Your task to perform on an android device: open app "ColorNote Notepad Notes" (install if not already installed) Image 0: 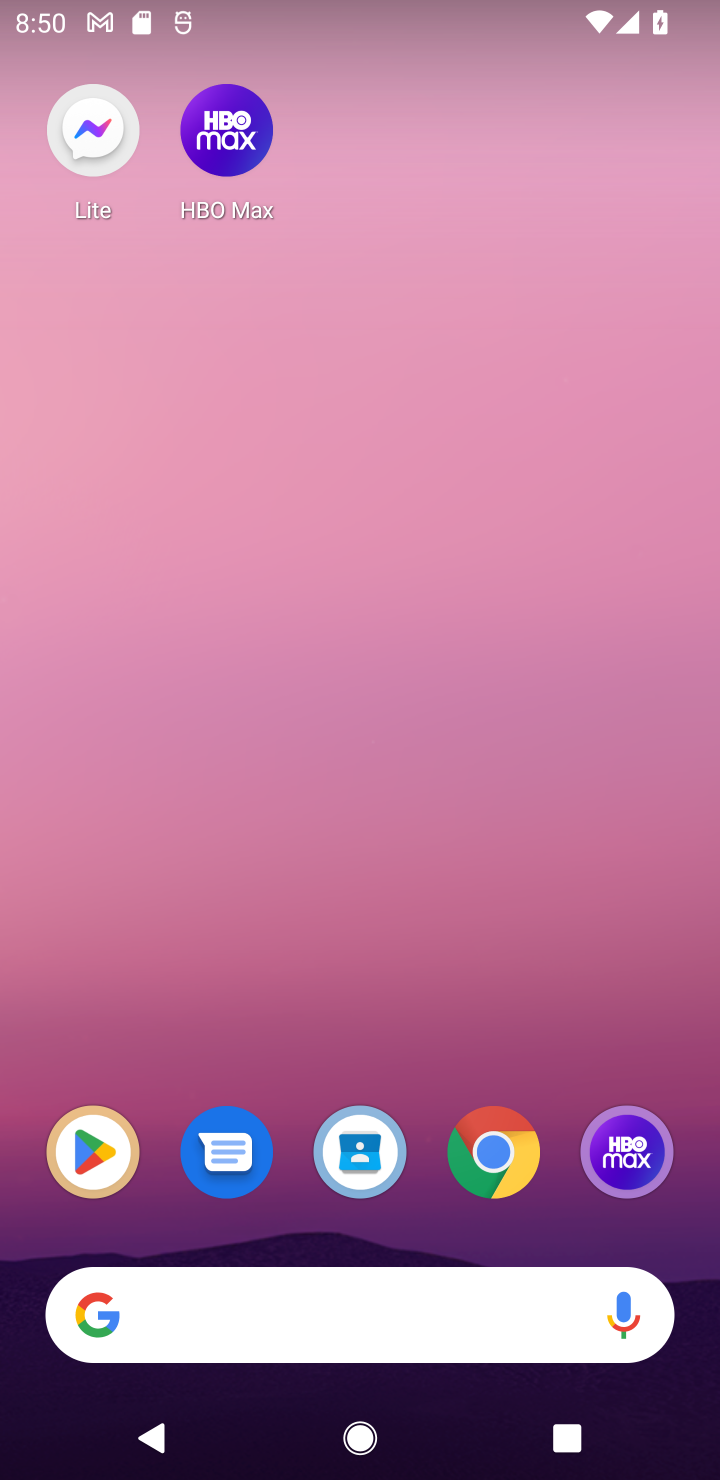
Step 0: drag from (413, 1243) to (389, 117)
Your task to perform on an android device: open app "ColorNote Notepad Notes" (install if not already installed) Image 1: 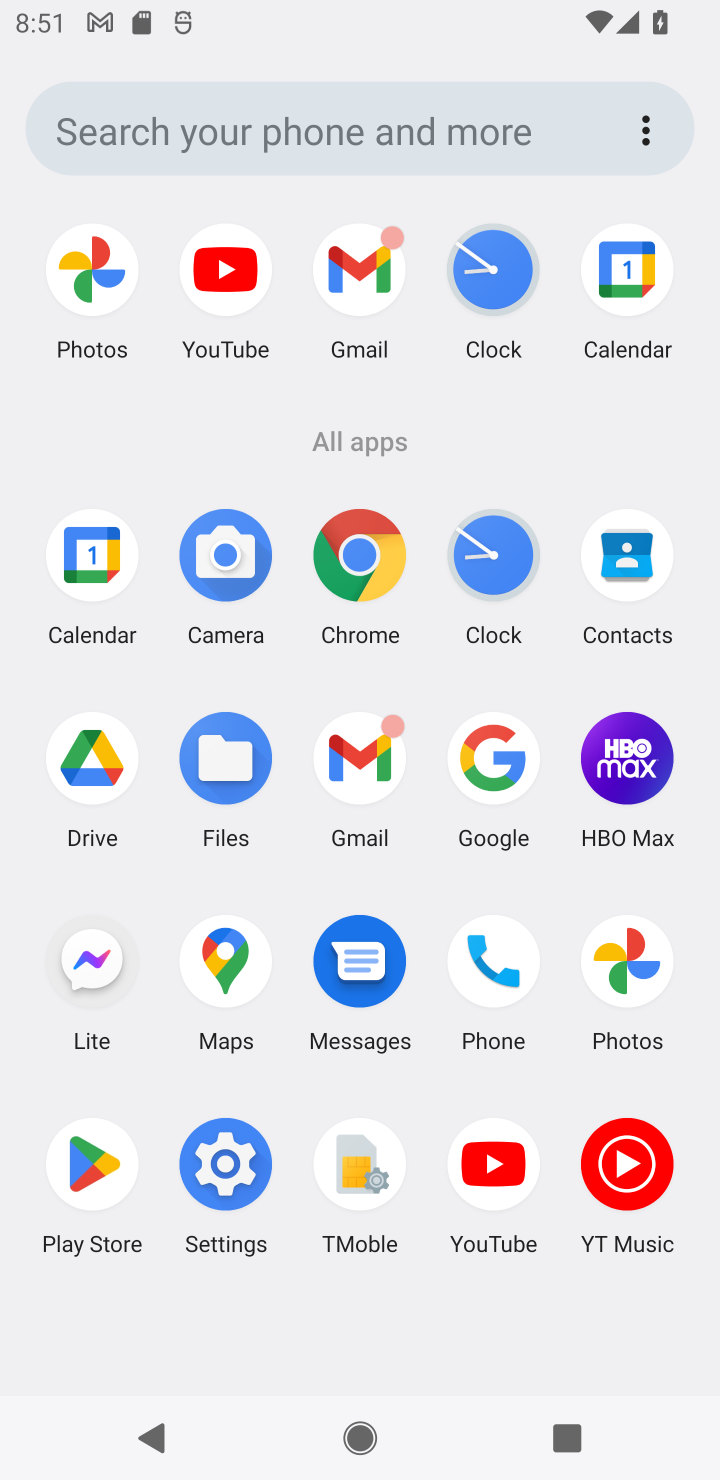
Step 1: click (43, 1158)
Your task to perform on an android device: open app "ColorNote Notepad Notes" (install if not already installed) Image 2: 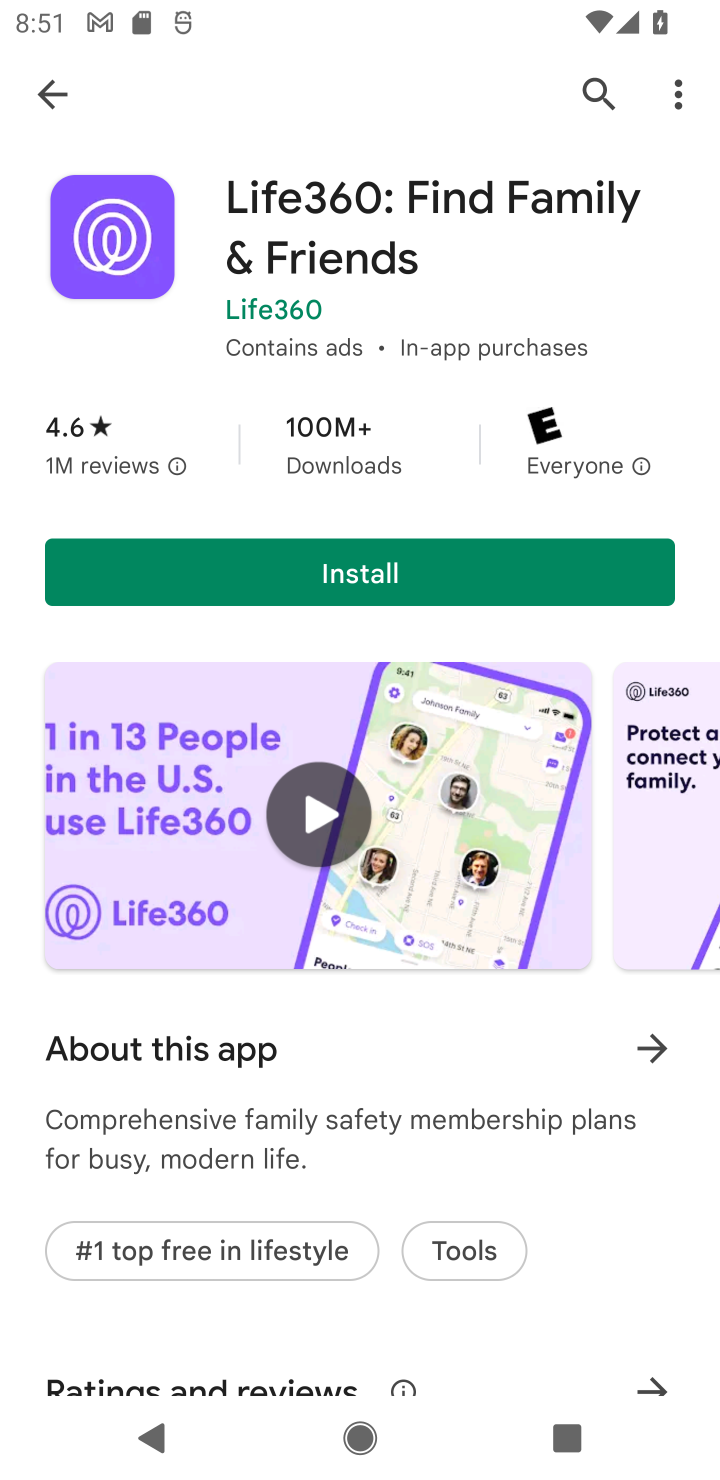
Step 2: click (63, 98)
Your task to perform on an android device: open app "ColorNote Notepad Notes" (install if not already installed) Image 3: 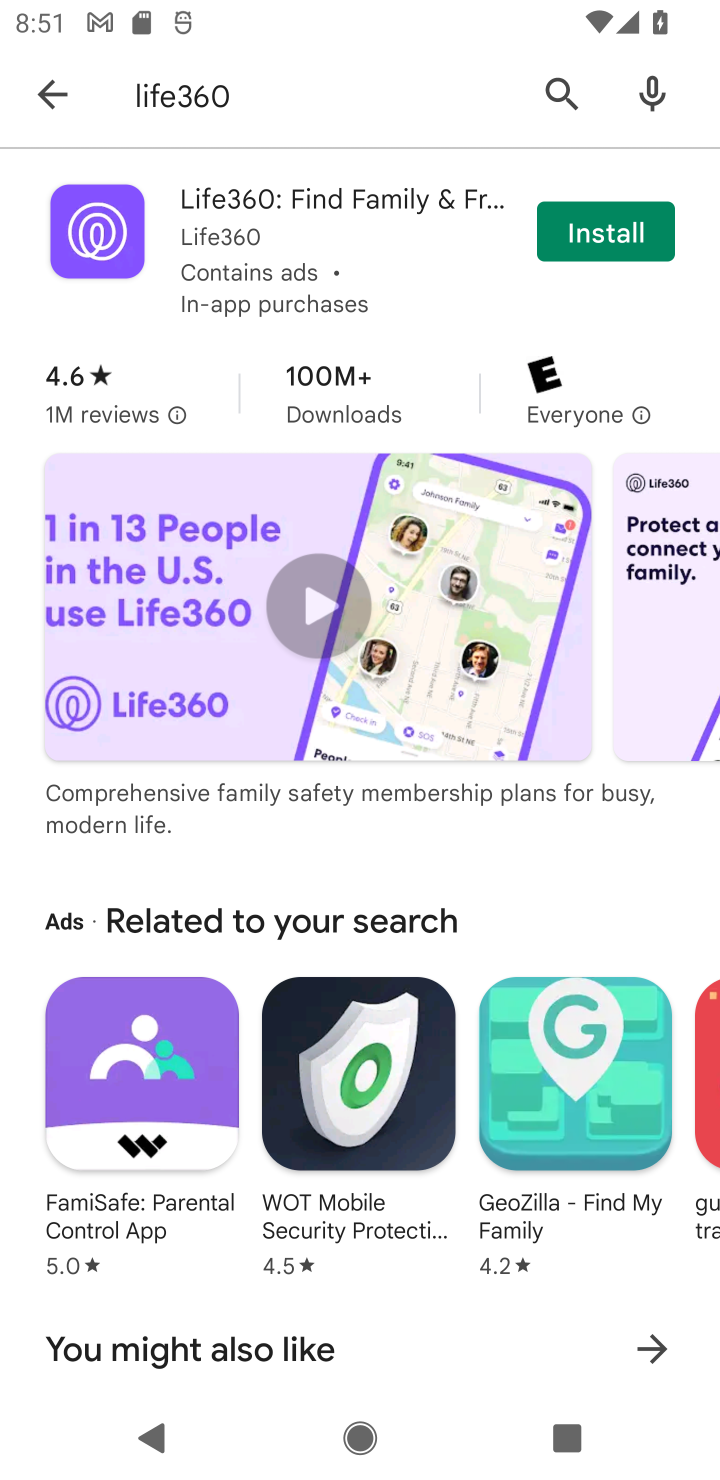
Step 3: click (47, 88)
Your task to perform on an android device: open app "ColorNote Notepad Notes" (install if not already installed) Image 4: 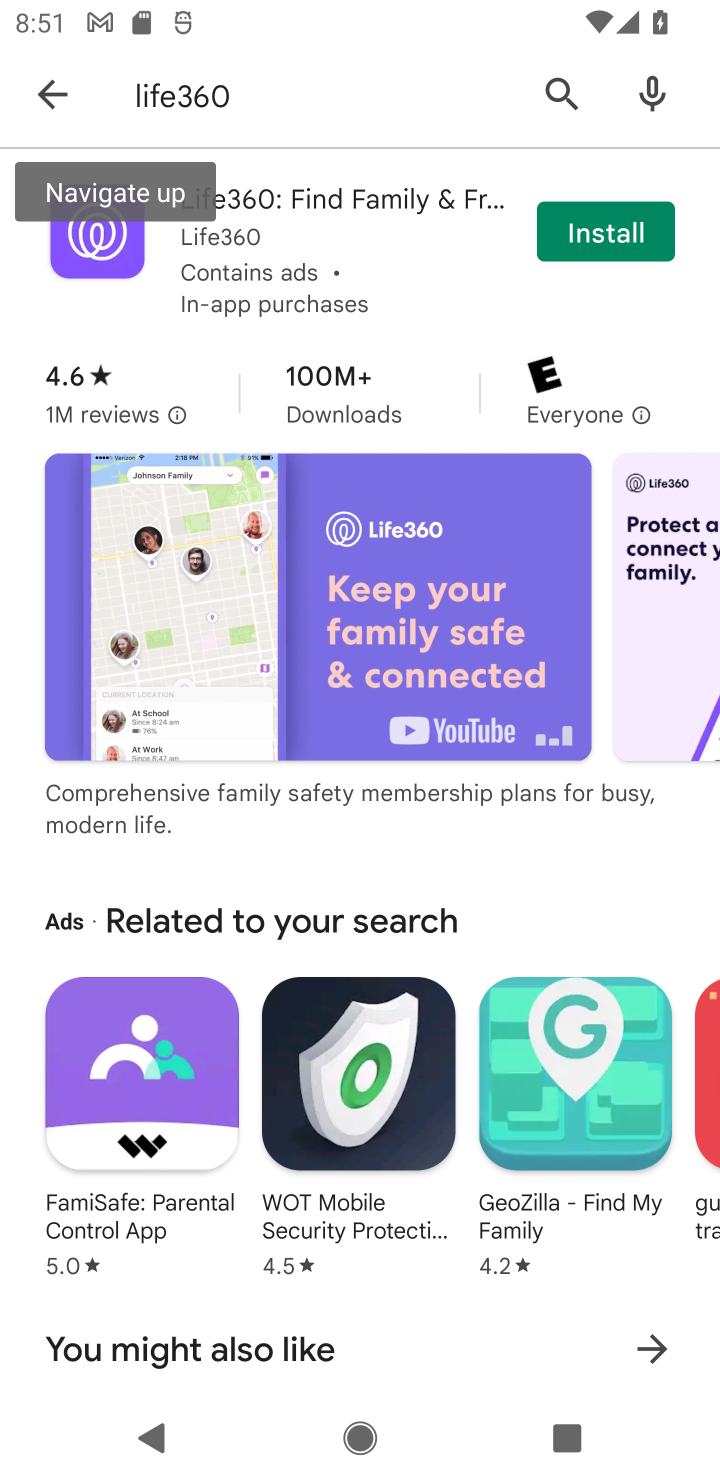
Step 4: click (43, 102)
Your task to perform on an android device: open app "ColorNote Notepad Notes" (install if not already installed) Image 5: 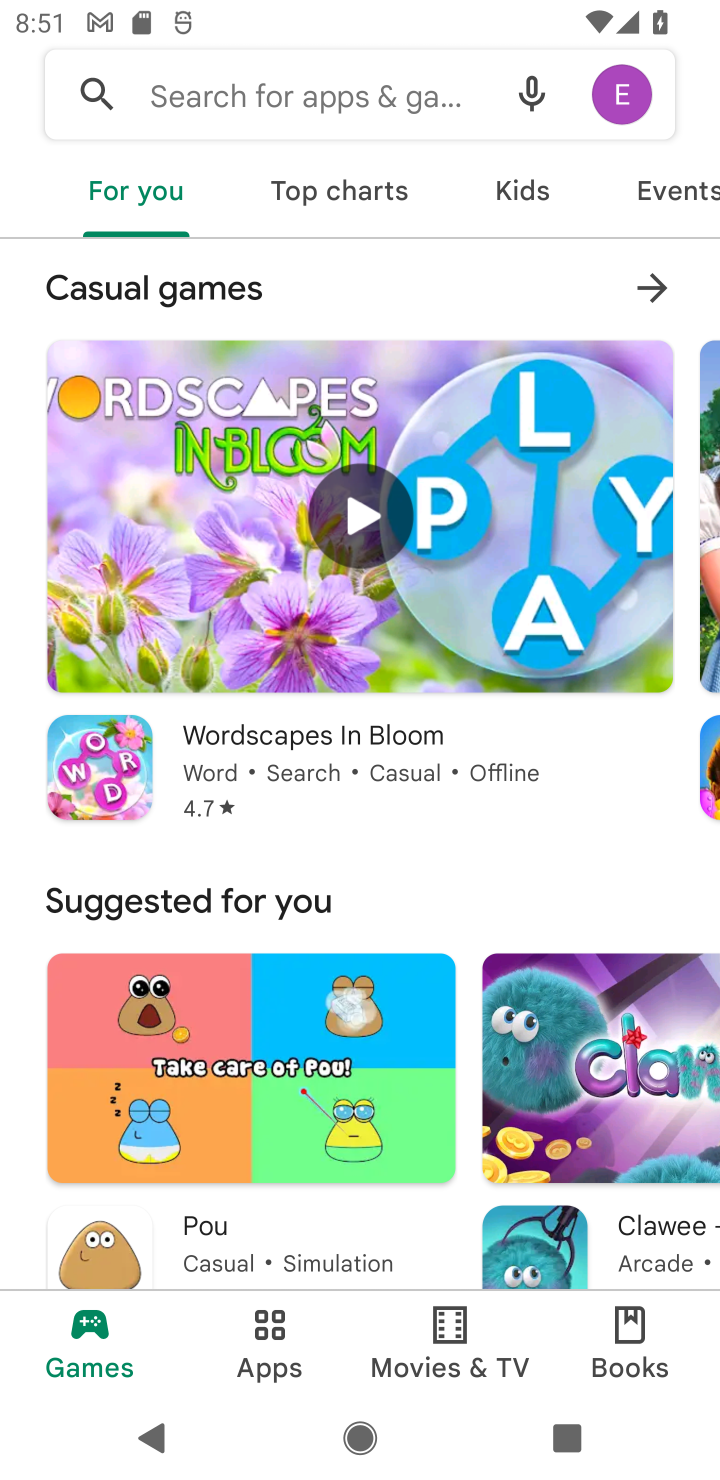
Step 5: click (187, 64)
Your task to perform on an android device: open app "ColorNote Notepad Notes" (install if not already installed) Image 6: 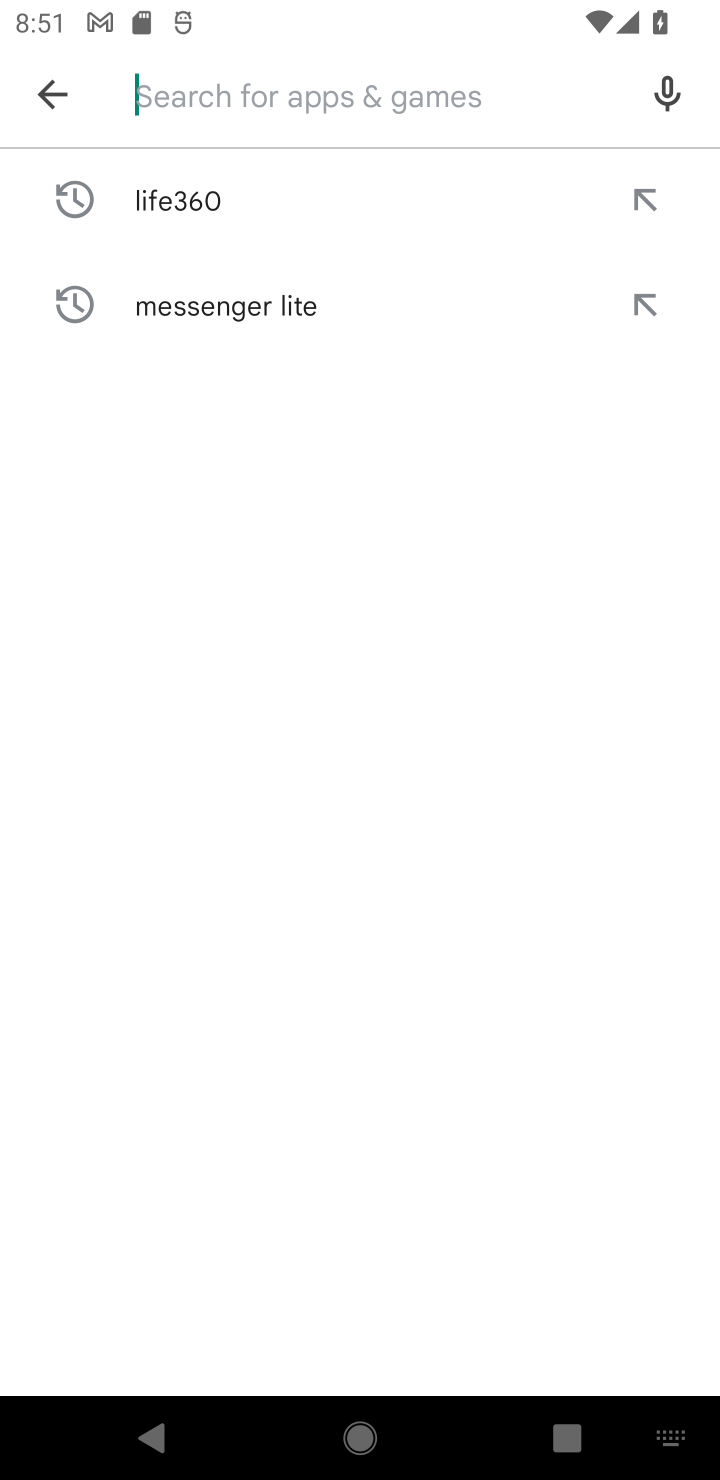
Step 6: type "ColorNote Notepad Notes"
Your task to perform on an android device: open app "ColorNote Notepad Notes" (install if not already installed) Image 7: 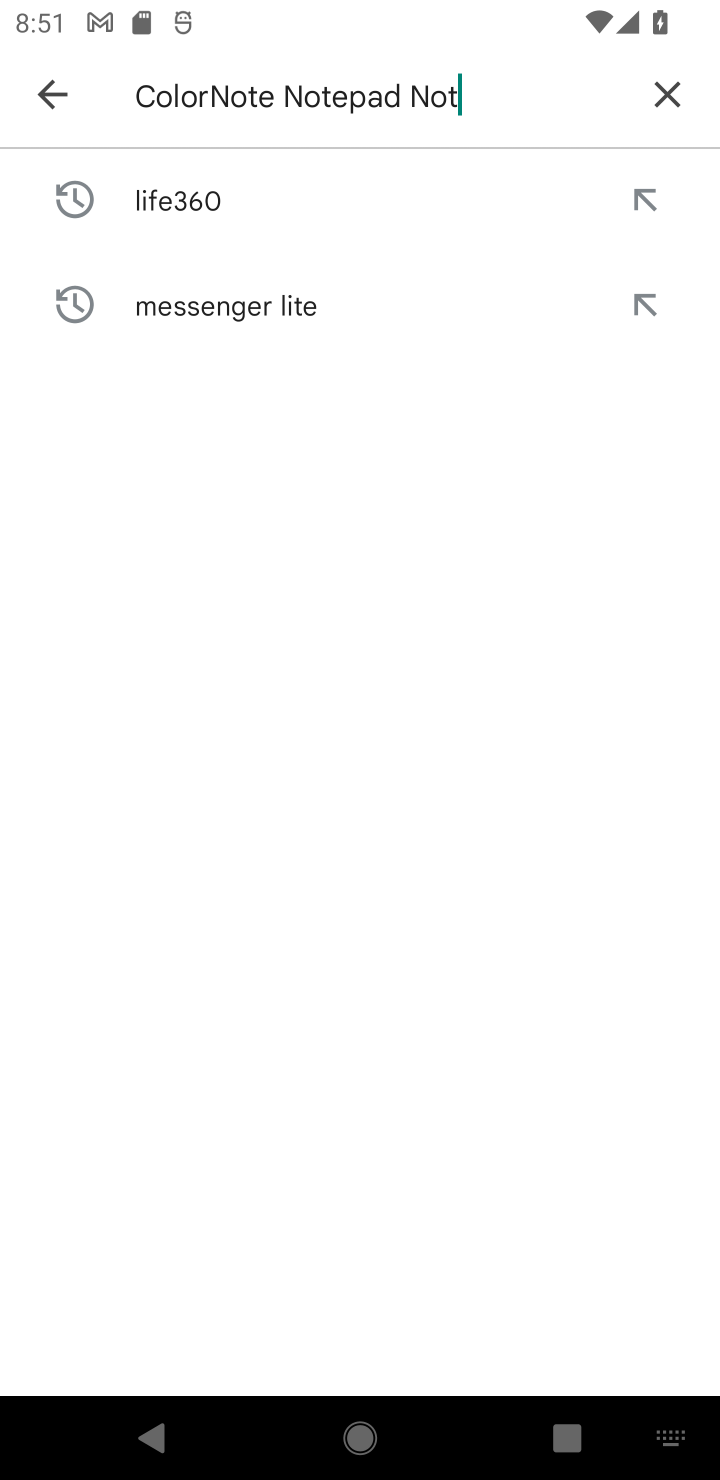
Step 7: type ""
Your task to perform on an android device: open app "ColorNote Notepad Notes" (install if not already installed) Image 8: 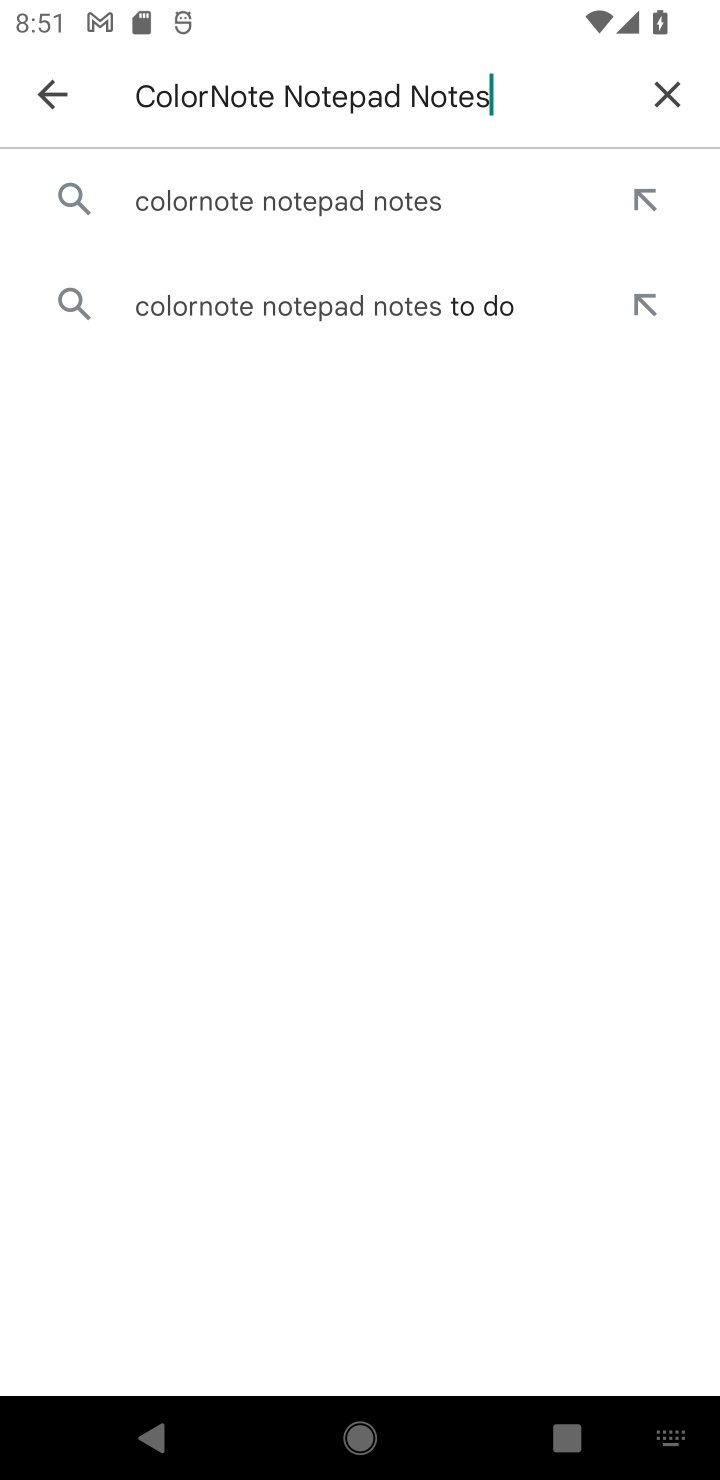
Step 8: click (268, 220)
Your task to perform on an android device: open app "ColorNote Notepad Notes" (install if not already installed) Image 9: 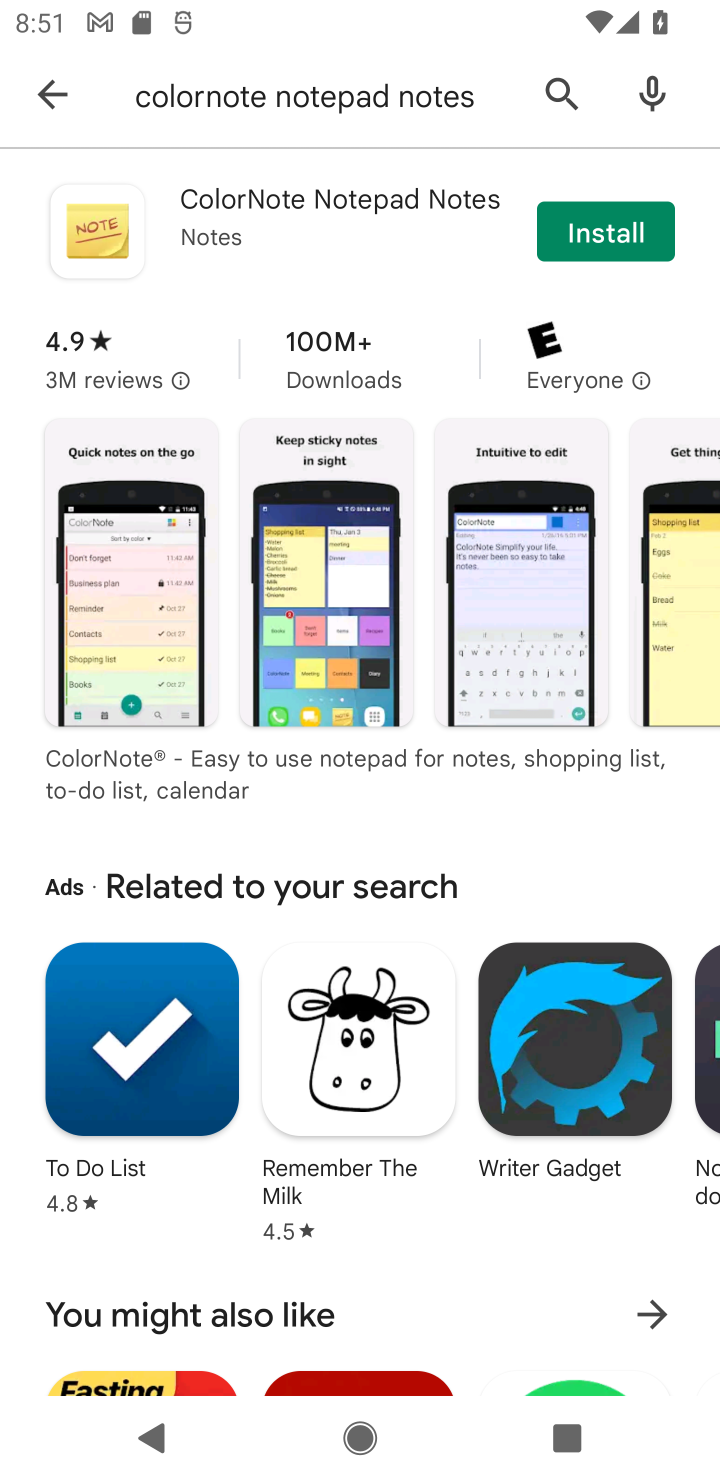
Step 9: click (556, 242)
Your task to perform on an android device: open app "ColorNote Notepad Notes" (install if not already installed) Image 10: 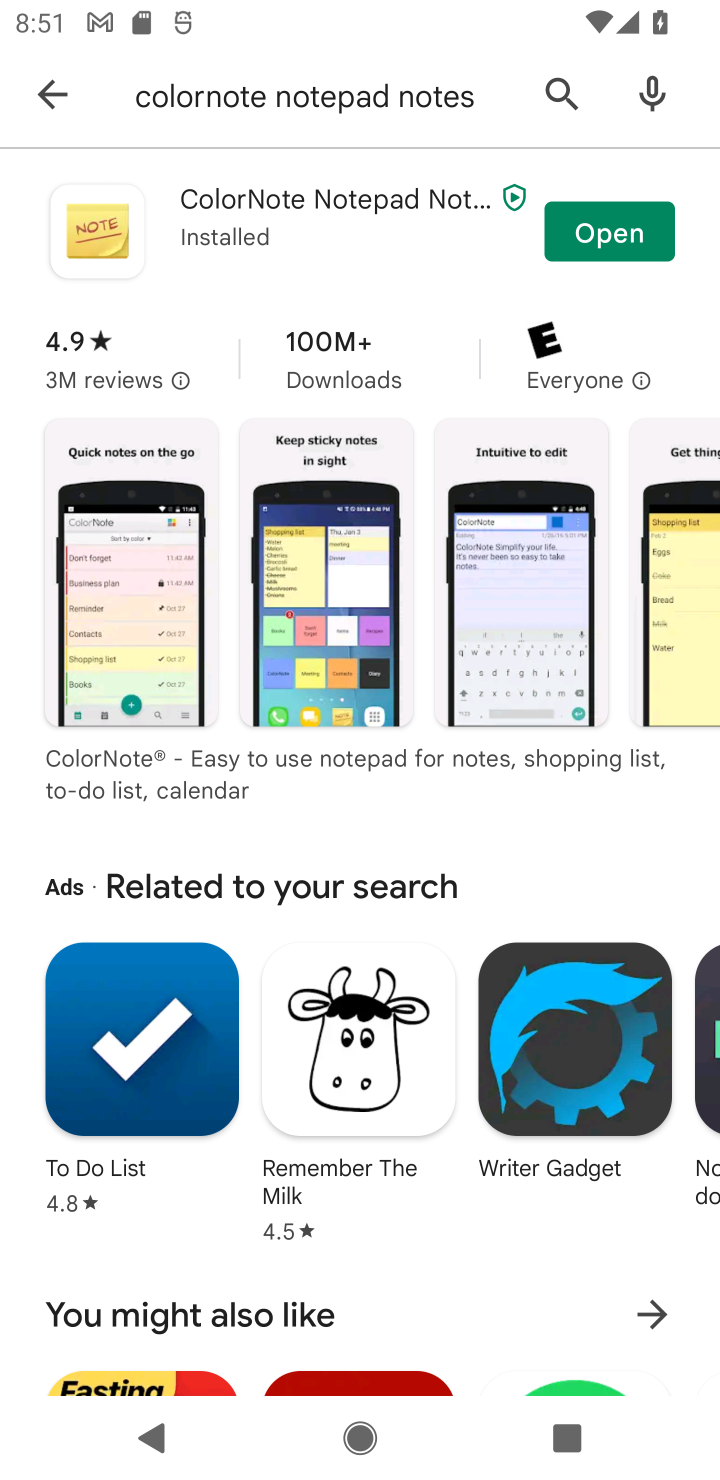
Step 10: task complete